Your task to perform on an android device: Go to network settings Image 0: 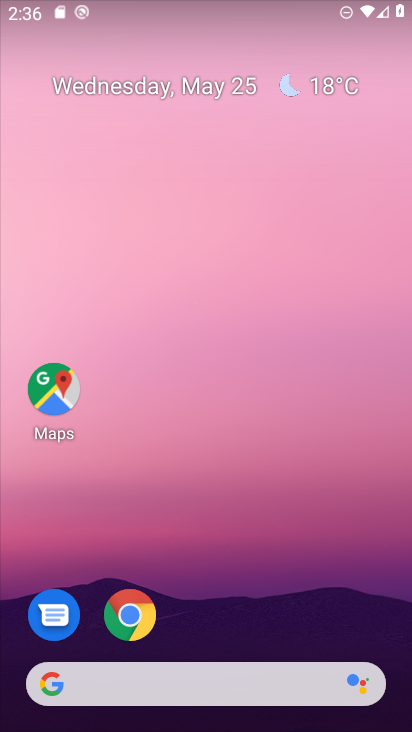
Step 0: drag from (218, 570) to (271, 87)
Your task to perform on an android device: Go to network settings Image 1: 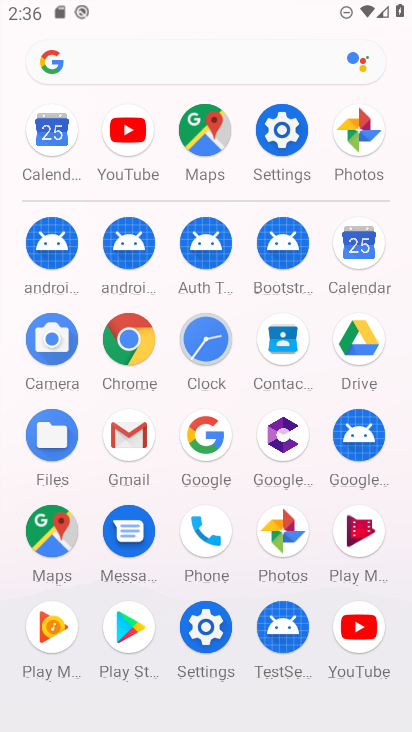
Step 1: click (288, 128)
Your task to perform on an android device: Go to network settings Image 2: 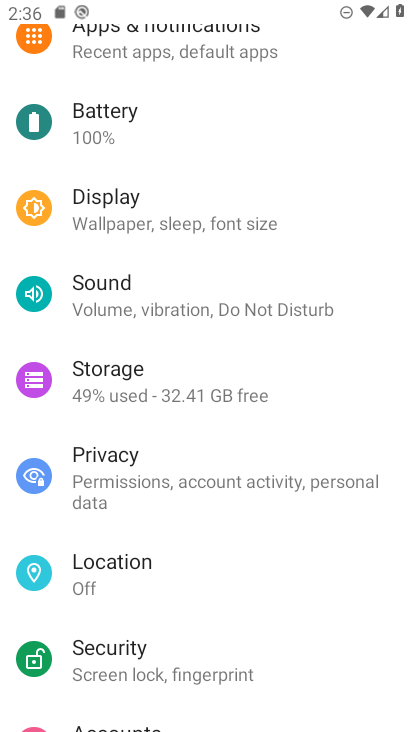
Step 2: drag from (238, 190) to (259, 604)
Your task to perform on an android device: Go to network settings Image 3: 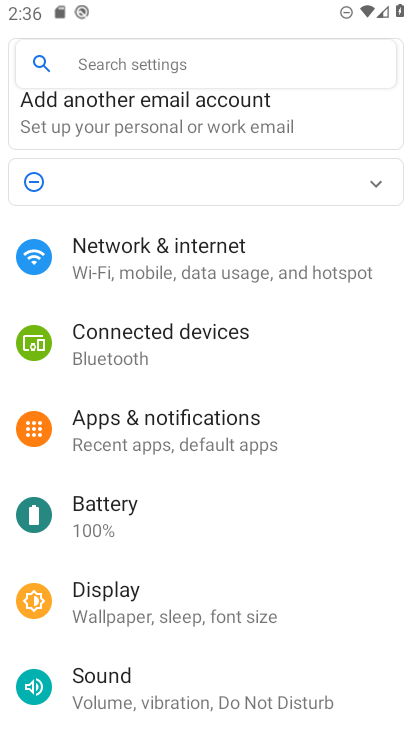
Step 3: click (273, 256)
Your task to perform on an android device: Go to network settings Image 4: 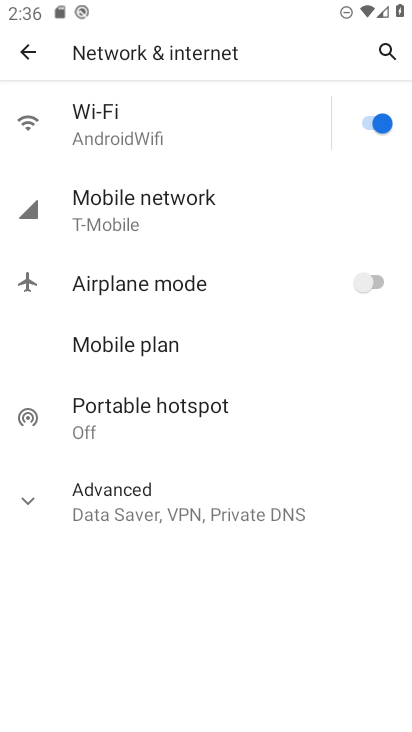
Step 4: task complete